Your task to perform on an android device: choose inbox layout in the gmail app Image 0: 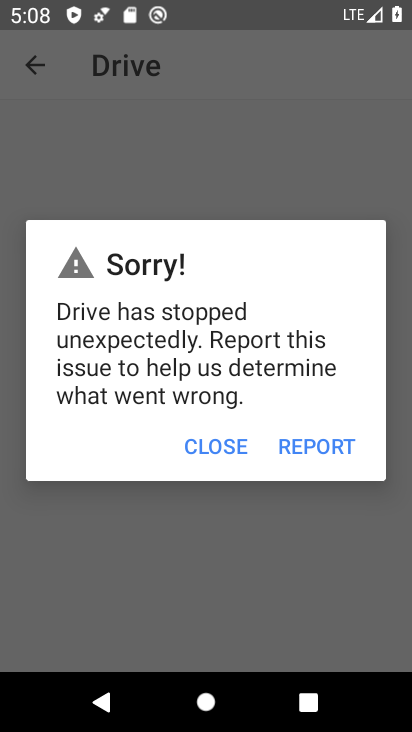
Step 0: press home button
Your task to perform on an android device: choose inbox layout in the gmail app Image 1: 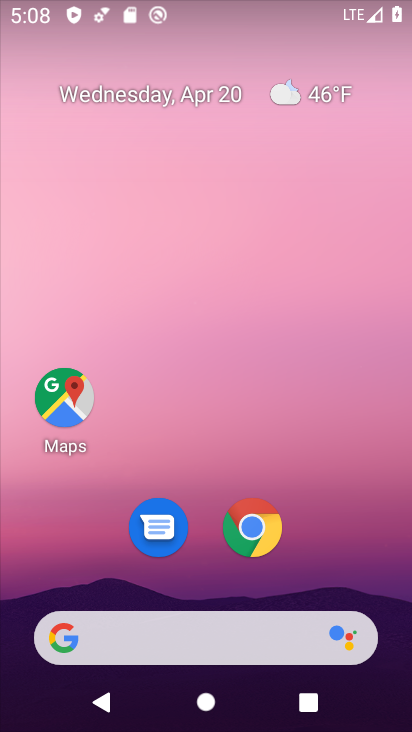
Step 1: drag from (215, 456) to (220, 88)
Your task to perform on an android device: choose inbox layout in the gmail app Image 2: 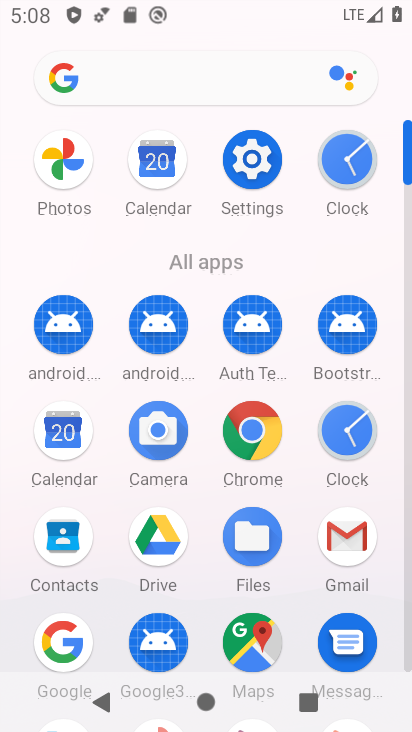
Step 2: click (347, 526)
Your task to perform on an android device: choose inbox layout in the gmail app Image 3: 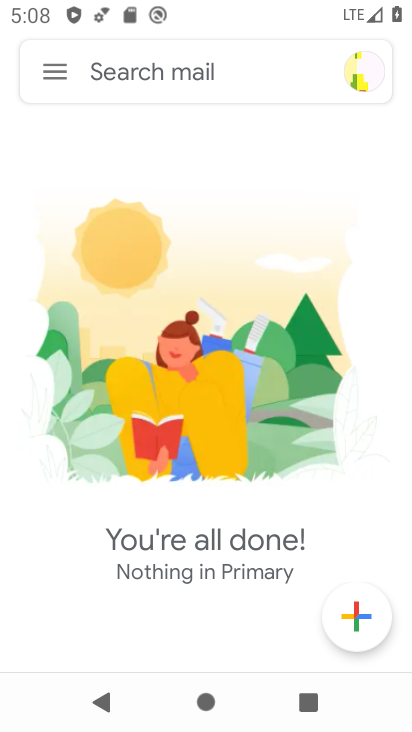
Step 3: click (52, 73)
Your task to perform on an android device: choose inbox layout in the gmail app Image 4: 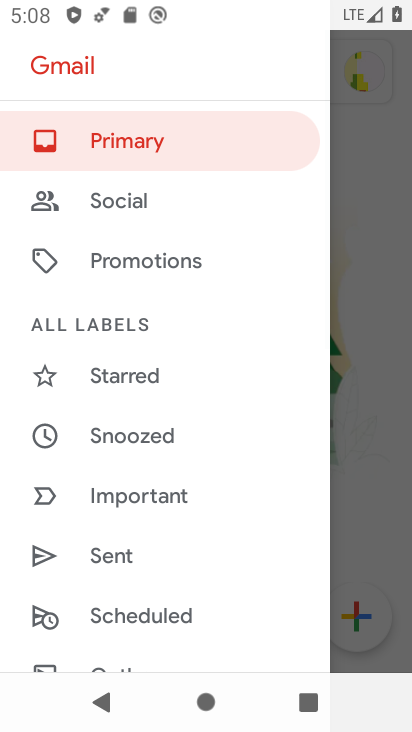
Step 4: drag from (211, 567) to (223, 123)
Your task to perform on an android device: choose inbox layout in the gmail app Image 5: 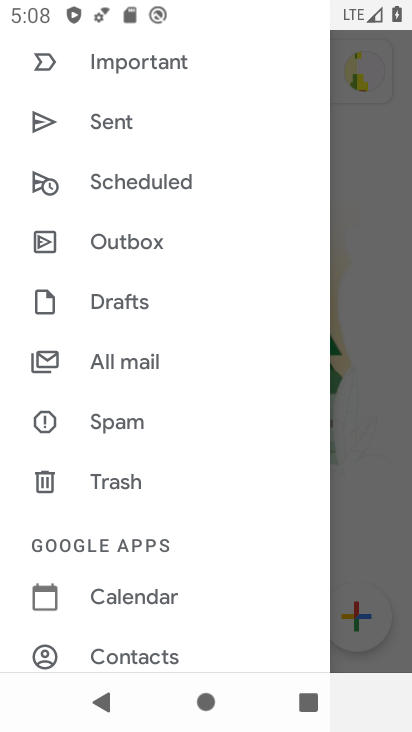
Step 5: drag from (167, 576) to (203, 230)
Your task to perform on an android device: choose inbox layout in the gmail app Image 6: 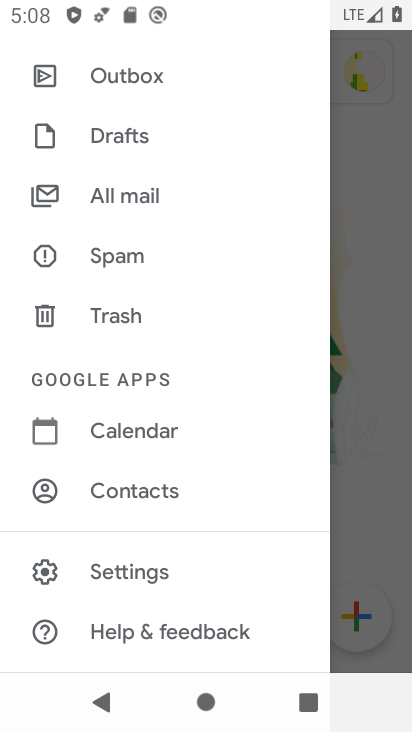
Step 6: click (125, 559)
Your task to perform on an android device: choose inbox layout in the gmail app Image 7: 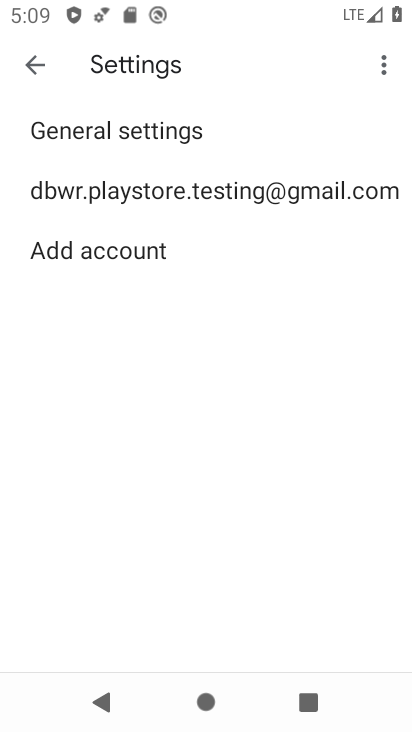
Step 7: click (145, 184)
Your task to perform on an android device: choose inbox layout in the gmail app Image 8: 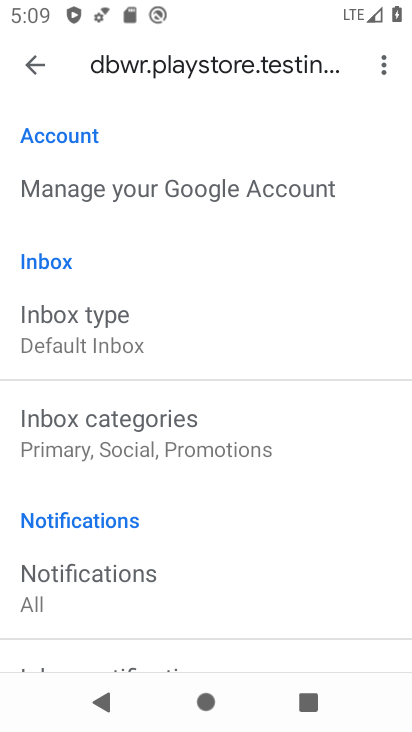
Step 8: click (94, 318)
Your task to perform on an android device: choose inbox layout in the gmail app Image 9: 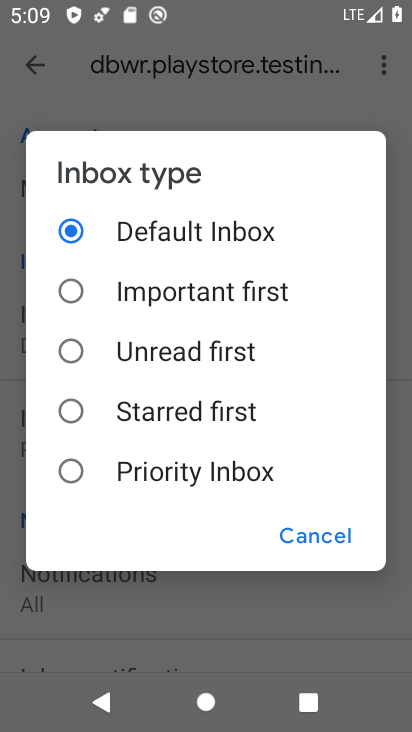
Step 9: click (179, 367)
Your task to perform on an android device: choose inbox layout in the gmail app Image 10: 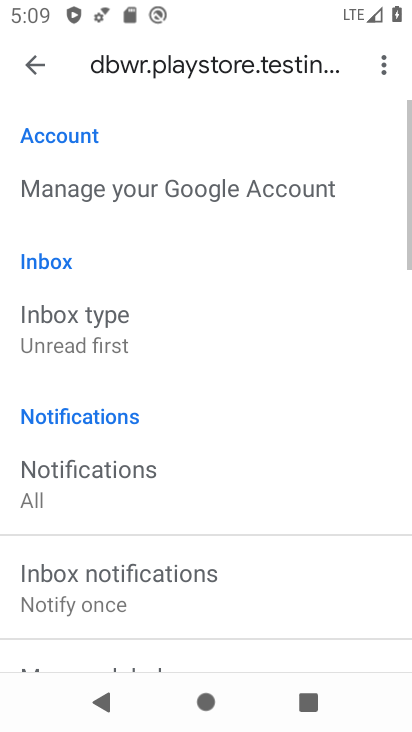
Step 10: task complete